Your task to perform on an android device: open device folders in google photos Image 0: 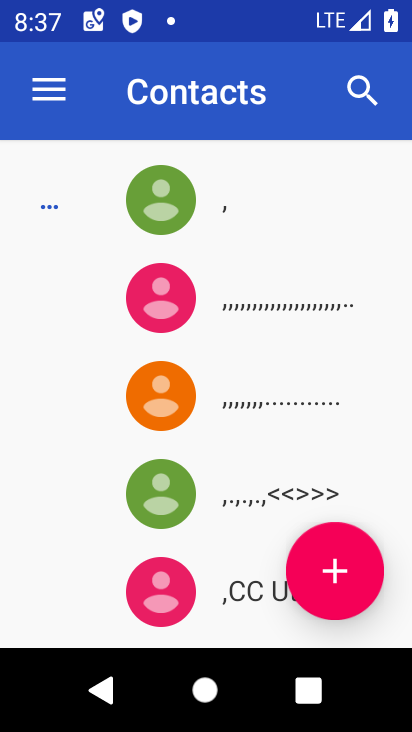
Step 0: press home button
Your task to perform on an android device: open device folders in google photos Image 1: 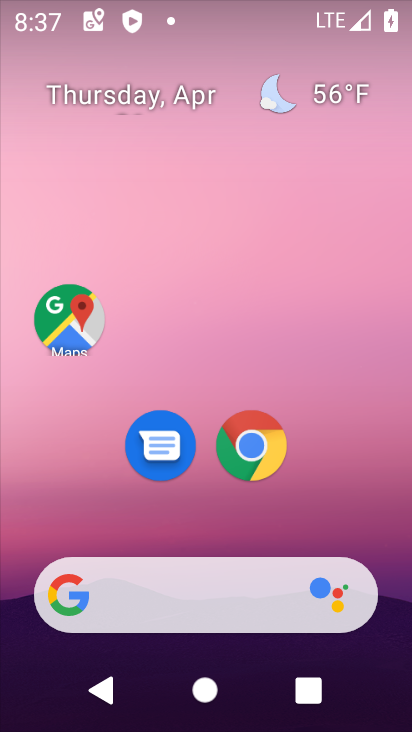
Step 1: drag from (371, 547) to (357, 16)
Your task to perform on an android device: open device folders in google photos Image 2: 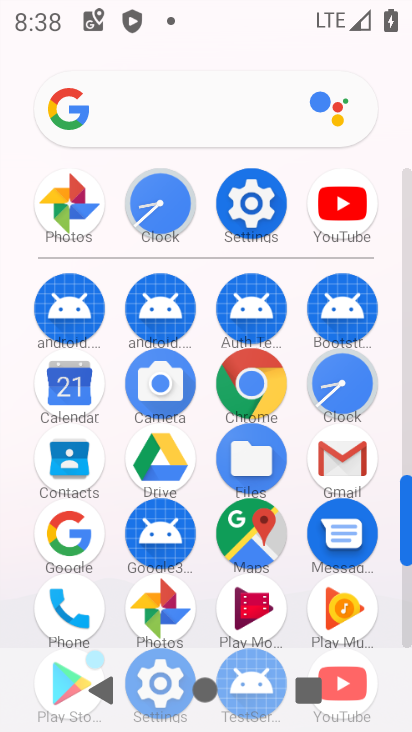
Step 2: click (71, 202)
Your task to perform on an android device: open device folders in google photos Image 3: 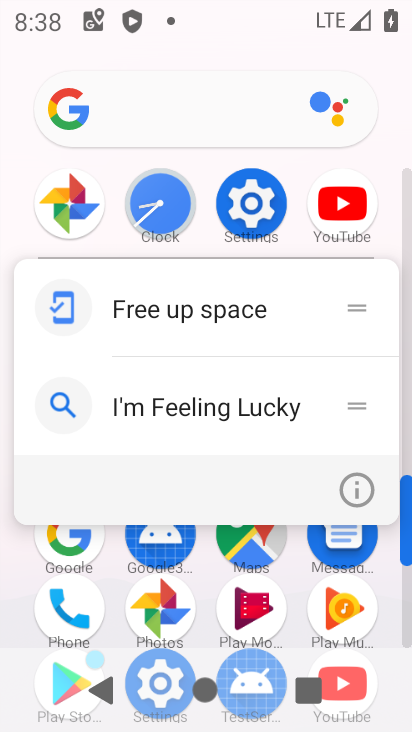
Step 3: click (75, 201)
Your task to perform on an android device: open device folders in google photos Image 4: 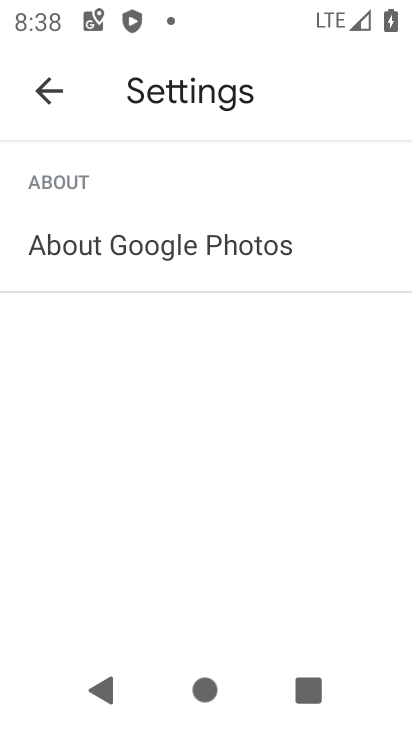
Step 4: click (65, 92)
Your task to perform on an android device: open device folders in google photos Image 5: 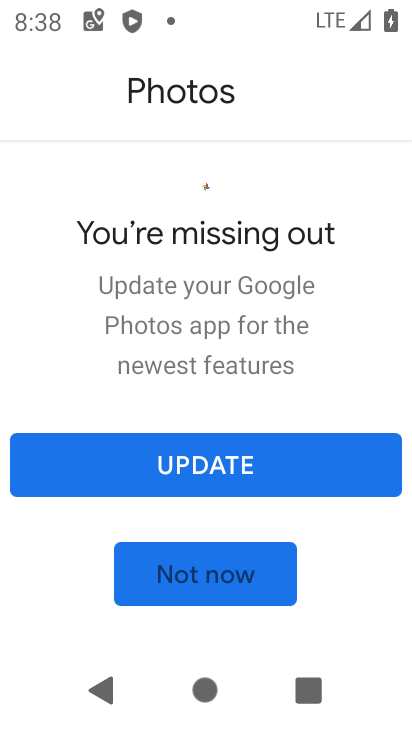
Step 5: click (185, 586)
Your task to perform on an android device: open device folders in google photos Image 6: 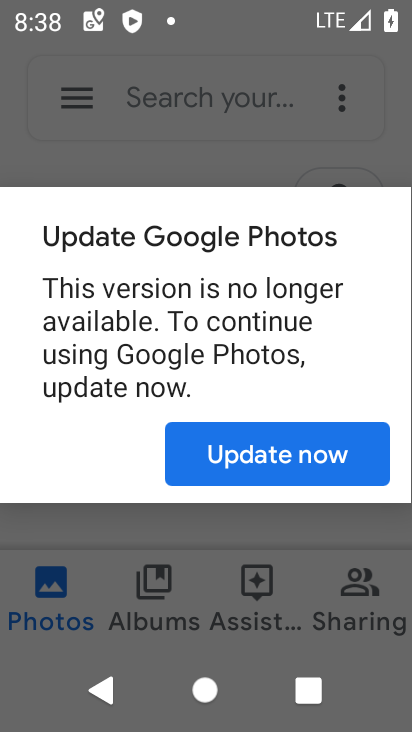
Step 6: click (259, 463)
Your task to perform on an android device: open device folders in google photos Image 7: 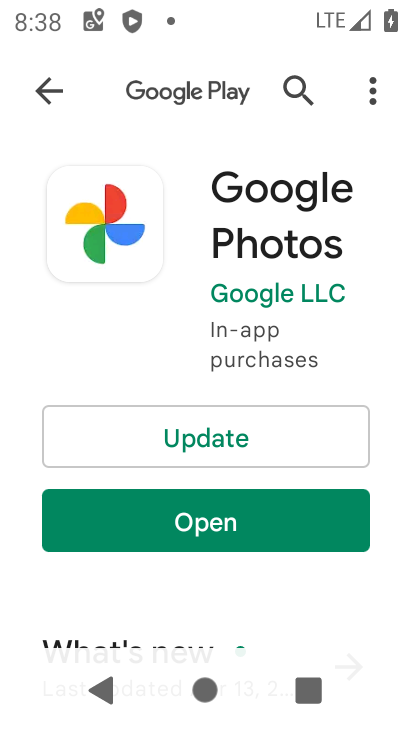
Step 7: click (215, 522)
Your task to perform on an android device: open device folders in google photos Image 8: 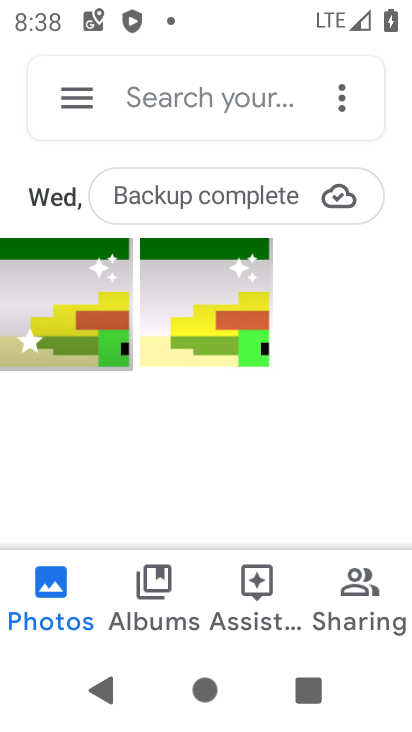
Step 8: click (85, 108)
Your task to perform on an android device: open device folders in google photos Image 9: 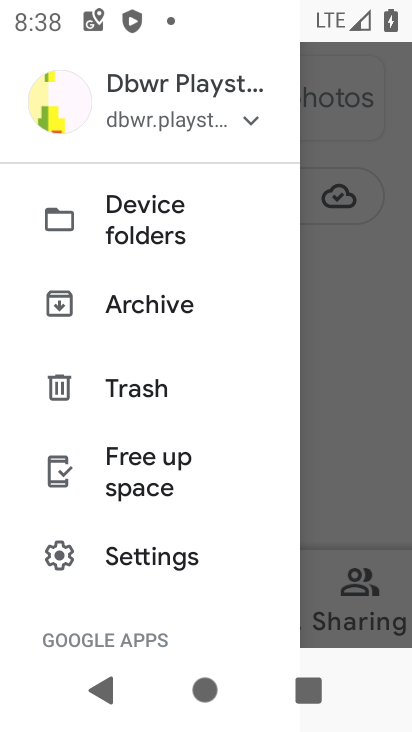
Step 9: click (133, 226)
Your task to perform on an android device: open device folders in google photos Image 10: 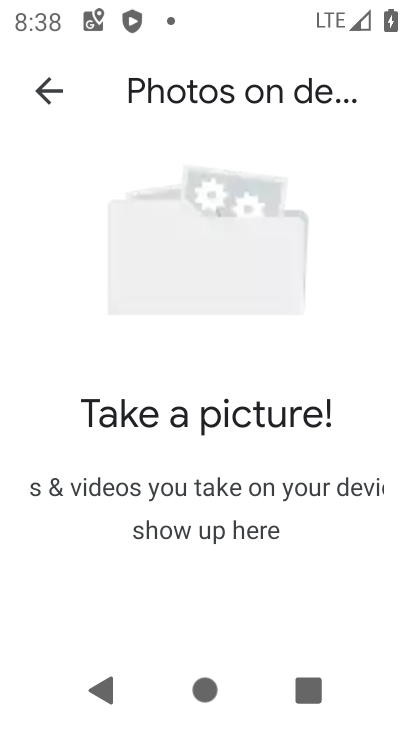
Step 10: task complete